Your task to perform on an android device: Show me popular videos on Youtube Image 0: 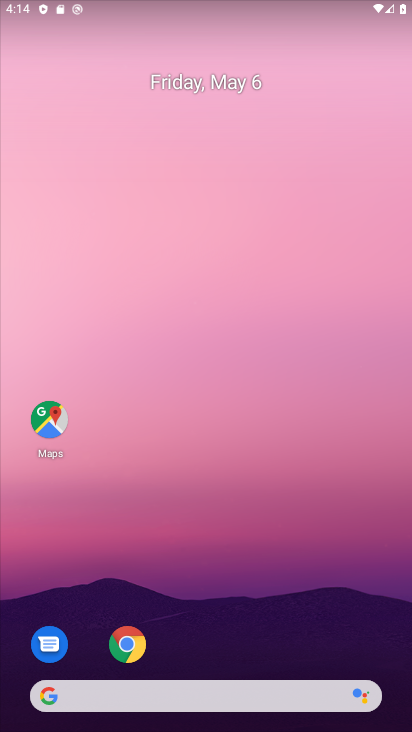
Step 0: drag from (298, 464) to (189, 149)
Your task to perform on an android device: Show me popular videos on Youtube Image 1: 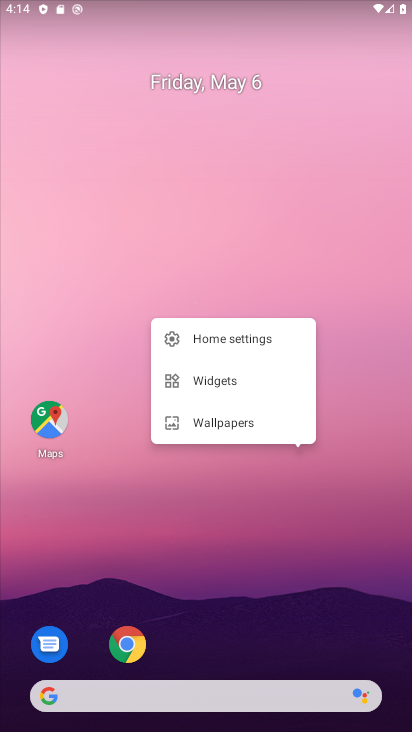
Step 1: drag from (227, 458) to (125, 101)
Your task to perform on an android device: Show me popular videos on Youtube Image 2: 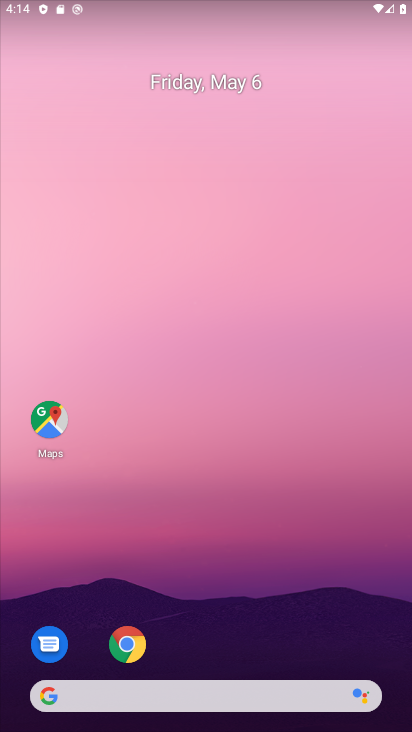
Step 2: drag from (244, 663) to (127, 171)
Your task to perform on an android device: Show me popular videos on Youtube Image 3: 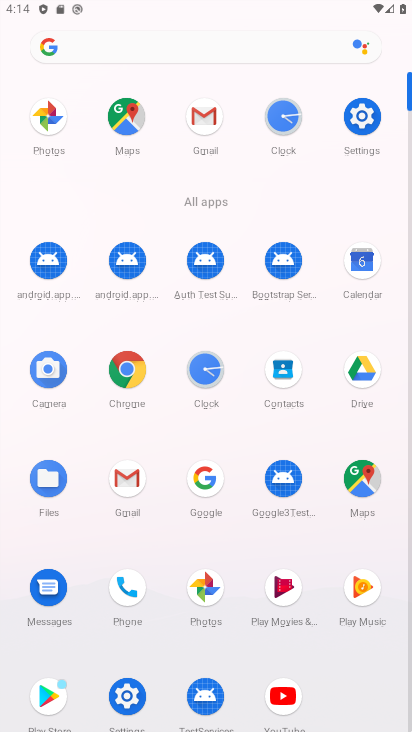
Step 3: drag from (238, 526) to (210, 116)
Your task to perform on an android device: Show me popular videos on Youtube Image 4: 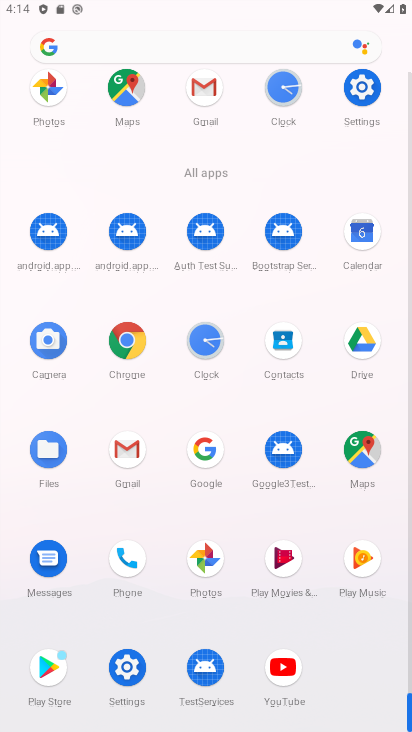
Step 4: click (284, 666)
Your task to perform on an android device: Show me popular videos on Youtube Image 5: 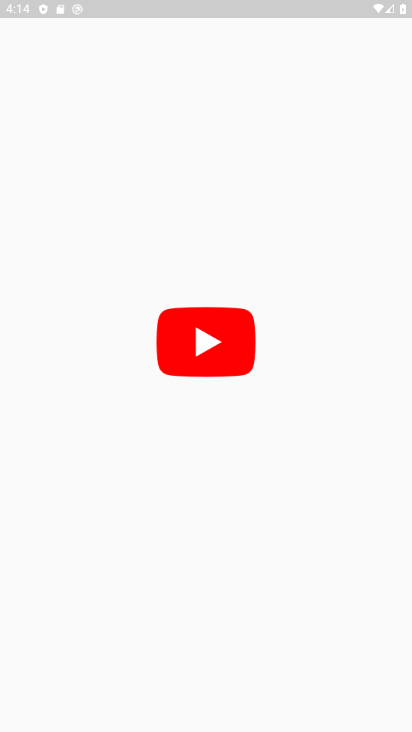
Step 5: click (283, 666)
Your task to perform on an android device: Show me popular videos on Youtube Image 6: 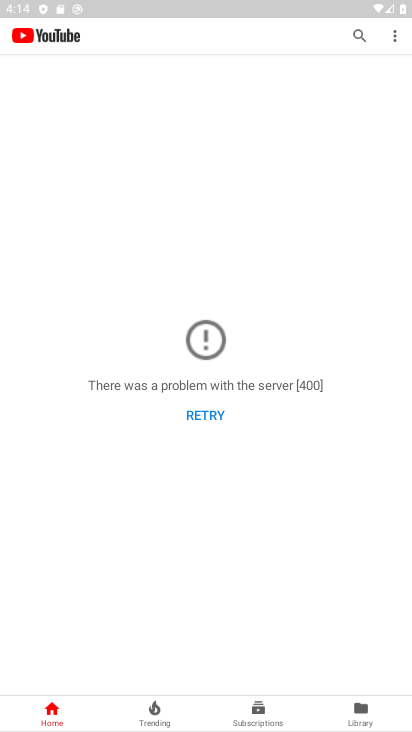
Step 6: click (208, 330)
Your task to perform on an android device: Show me popular videos on Youtube Image 7: 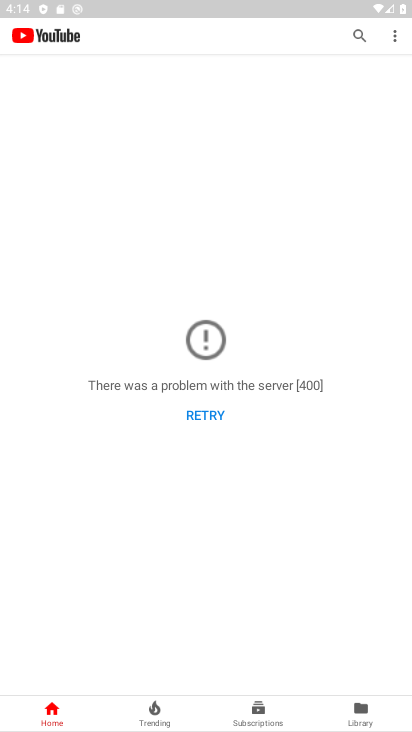
Step 7: task complete